Your task to perform on an android device: Go to Google Image 0: 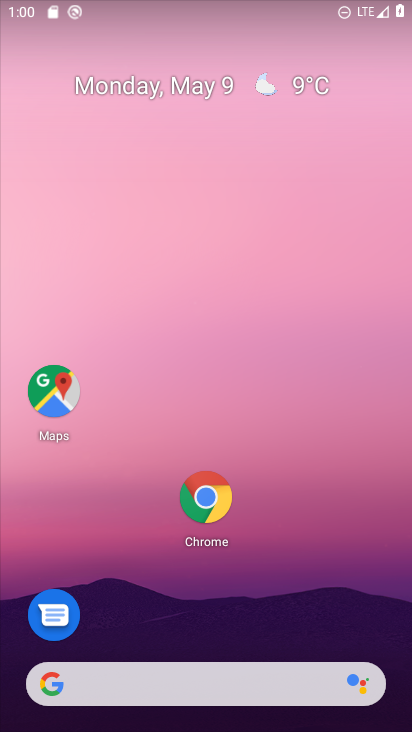
Step 0: drag from (301, 580) to (269, 169)
Your task to perform on an android device: Go to Google Image 1: 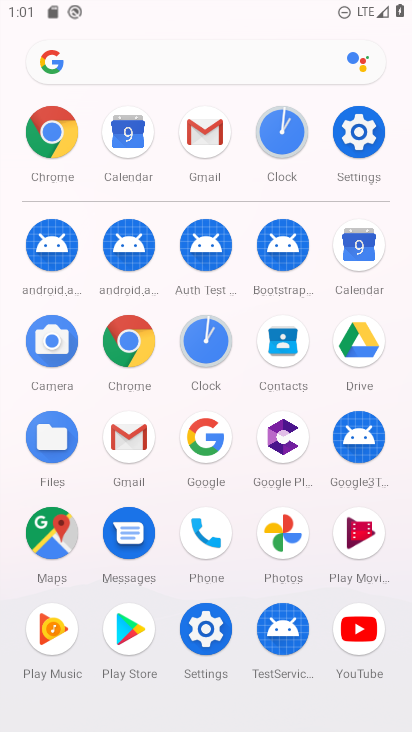
Step 1: click (207, 441)
Your task to perform on an android device: Go to Google Image 2: 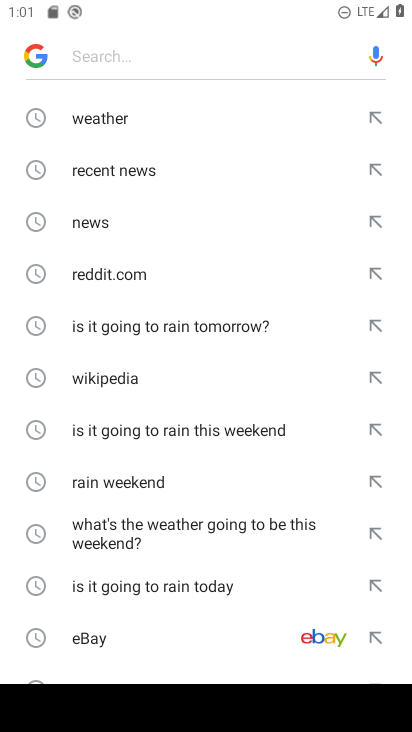
Step 2: task complete